Your task to perform on an android device: Search for Mexican restaurants on Maps Image 0: 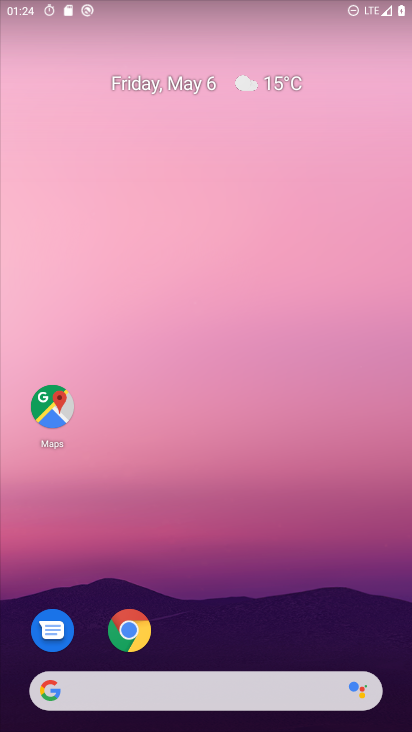
Step 0: click (55, 416)
Your task to perform on an android device: Search for Mexican restaurants on Maps Image 1: 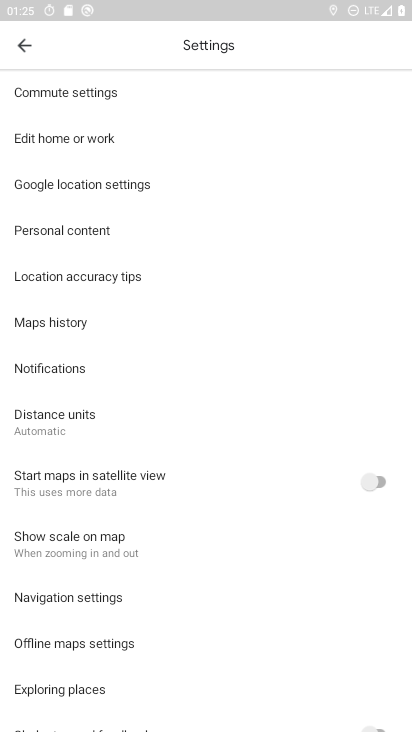
Step 1: click (9, 33)
Your task to perform on an android device: Search for Mexican restaurants on Maps Image 2: 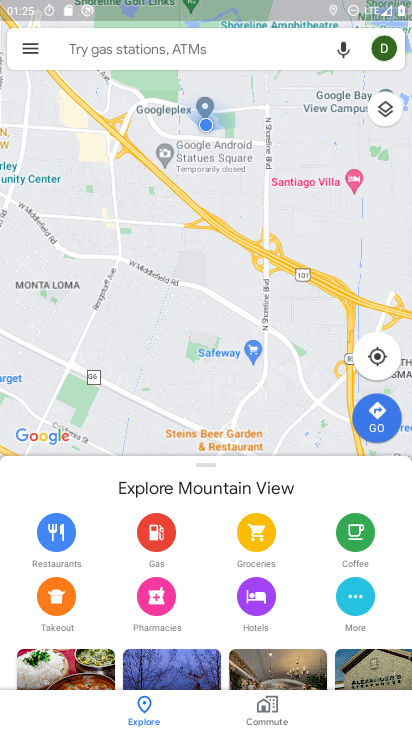
Step 2: click (223, 49)
Your task to perform on an android device: Search for Mexican restaurants on Maps Image 3: 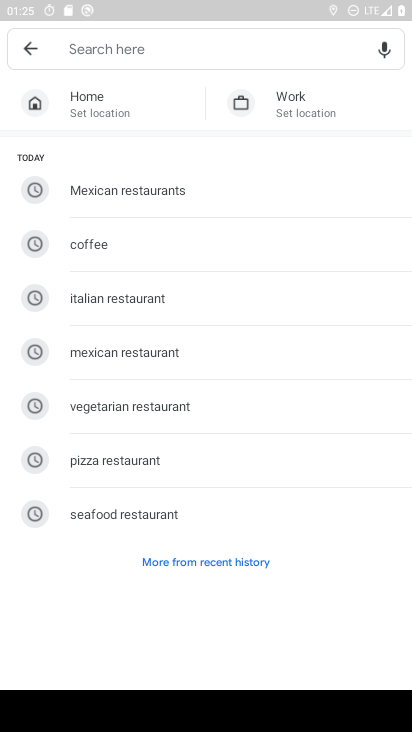
Step 3: click (162, 189)
Your task to perform on an android device: Search for Mexican restaurants on Maps Image 4: 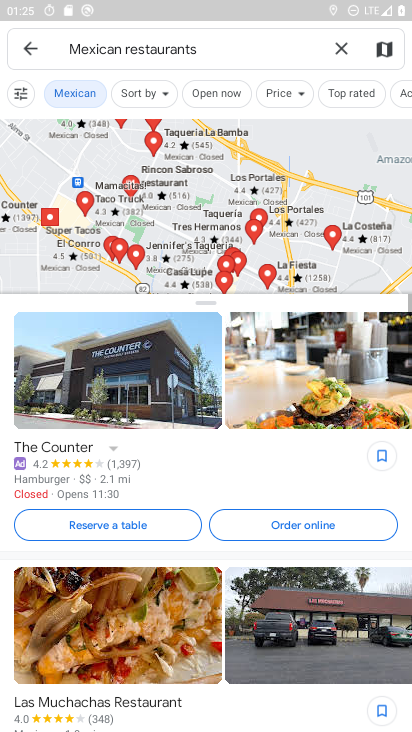
Step 4: task complete